Your task to perform on an android device: create a new album in the google photos Image 0: 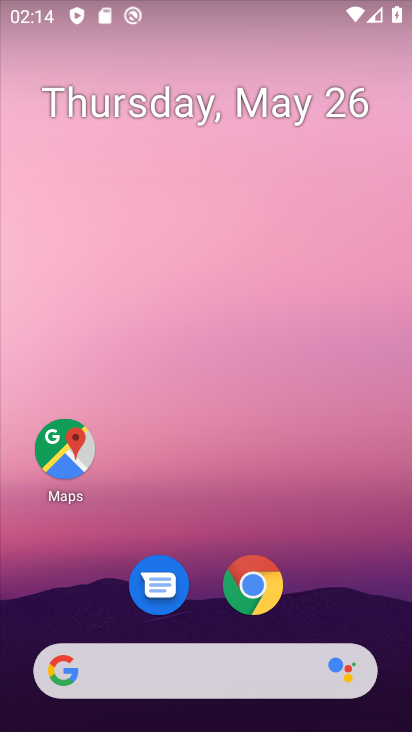
Step 0: drag from (230, 484) to (254, 155)
Your task to perform on an android device: create a new album in the google photos Image 1: 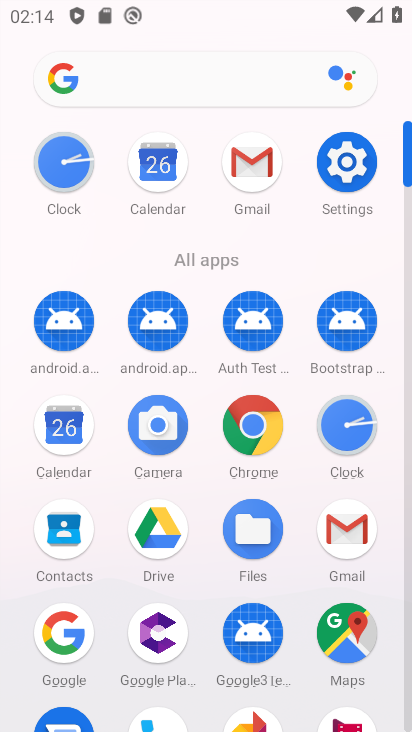
Step 1: drag from (293, 502) to (304, 206)
Your task to perform on an android device: create a new album in the google photos Image 2: 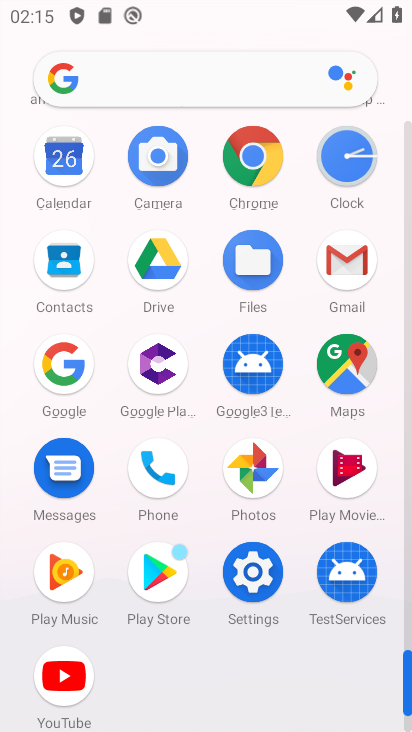
Step 2: click (265, 453)
Your task to perform on an android device: create a new album in the google photos Image 3: 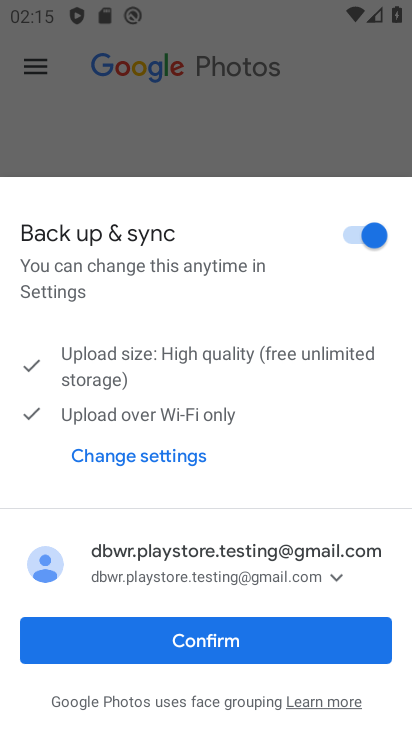
Step 3: click (265, 636)
Your task to perform on an android device: create a new album in the google photos Image 4: 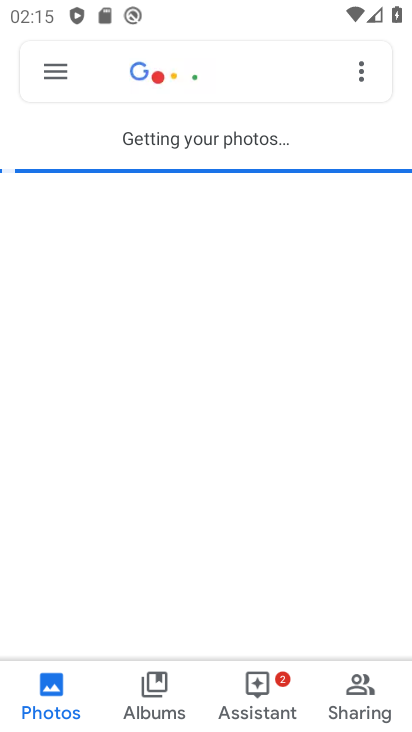
Step 4: click (158, 690)
Your task to perform on an android device: create a new album in the google photos Image 5: 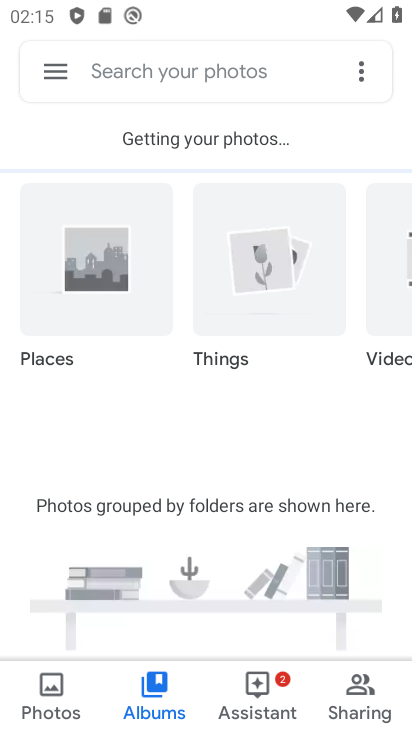
Step 5: click (359, 72)
Your task to perform on an android device: create a new album in the google photos Image 6: 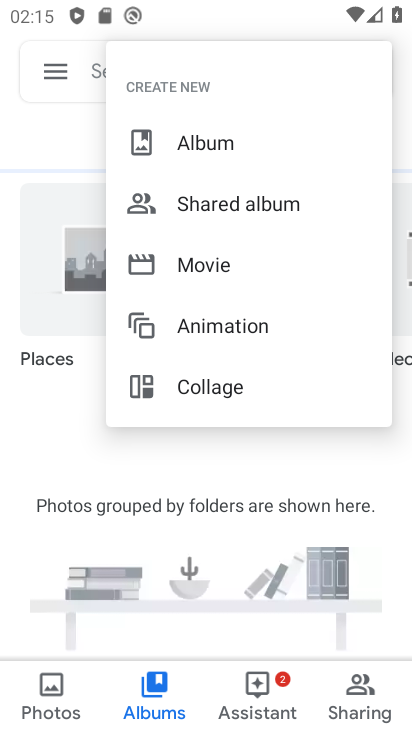
Step 6: click (250, 148)
Your task to perform on an android device: create a new album in the google photos Image 7: 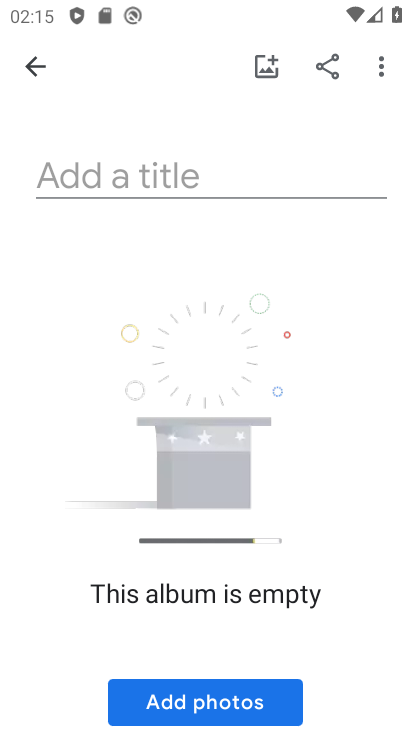
Step 7: click (221, 170)
Your task to perform on an android device: create a new album in the google photos Image 8: 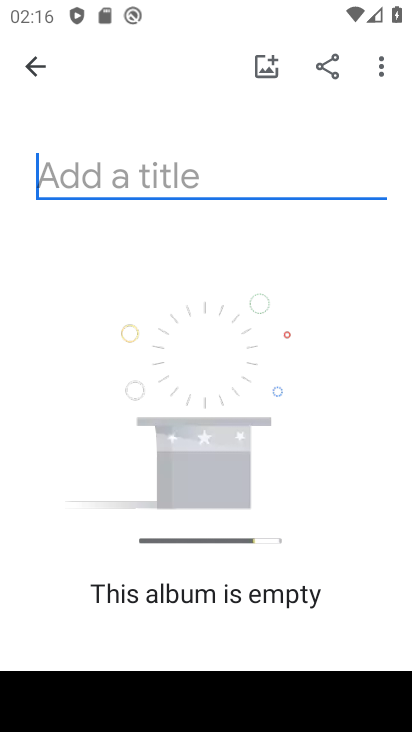
Step 8: type "Vishnu Stambh 27 Temples"
Your task to perform on an android device: create a new album in the google photos Image 9: 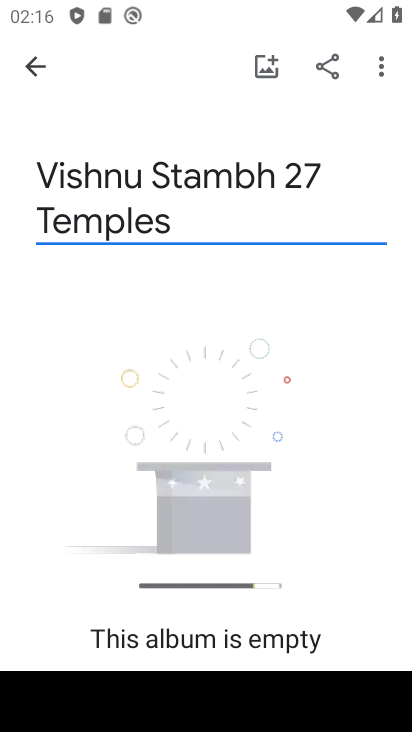
Step 9: drag from (216, 497) to (246, 252)
Your task to perform on an android device: create a new album in the google photos Image 10: 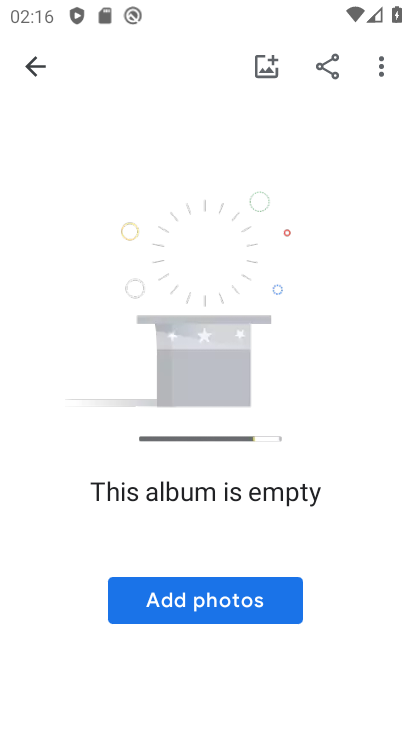
Step 10: click (228, 595)
Your task to perform on an android device: create a new album in the google photos Image 11: 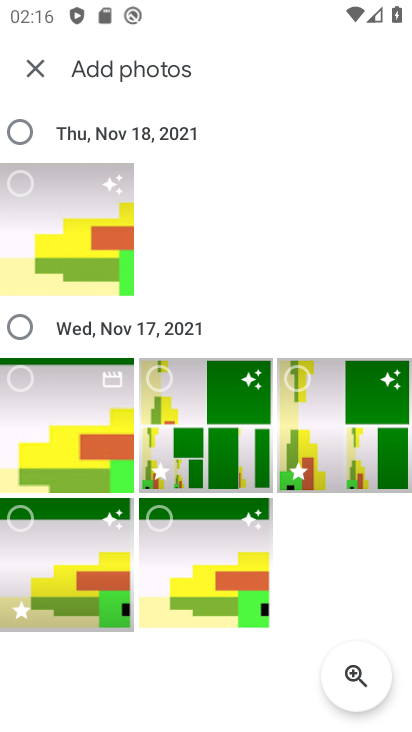
Step 11: click (161, 515)
Your task to perform on an android device: create a new album in the google photos Image 12: 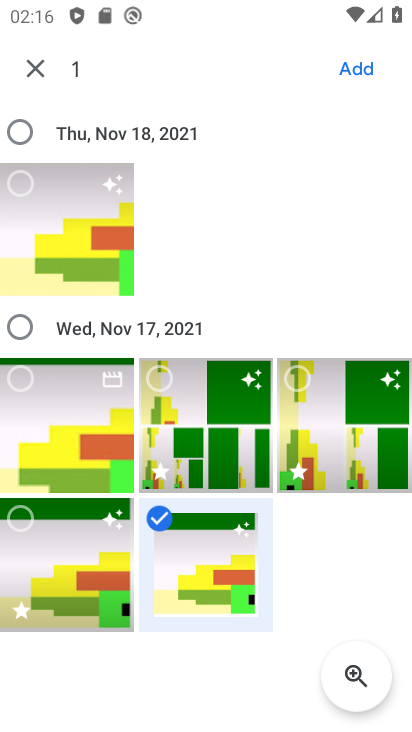
Step 12: click (27, 517)
Your task to perform on an android device: create a new album in the google photos Image 13: 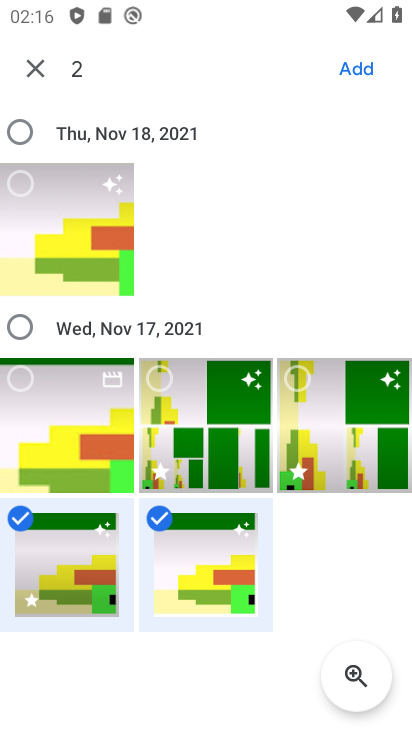
Step 13: click (363, 69)
Your task to perform on an android device: create a new album in the google photos Image 14: 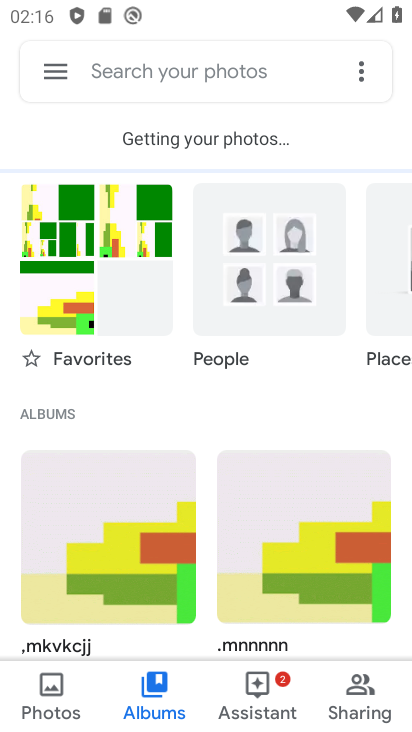
Step 14: task complete